Your task to perform on an android device: Open Reddit.com Image 0: 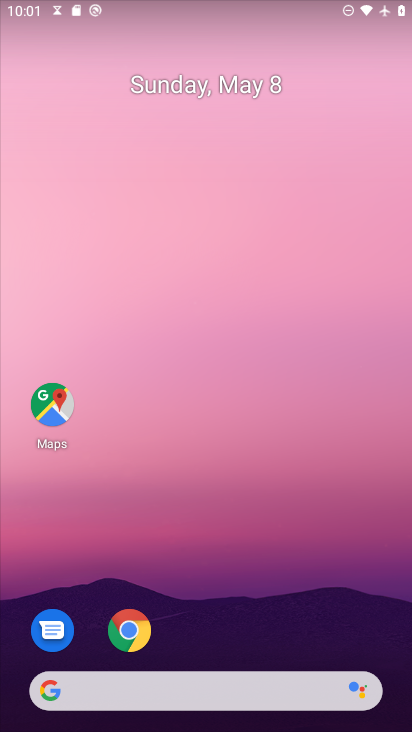
Step 0: click (127, 630)
Your task to perform on an android device: Open Reddit.com Image 1: 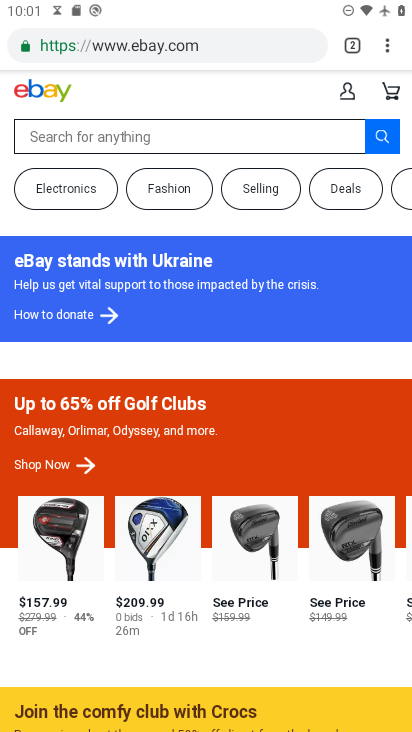
Step 1: drag from (386, 46) to (279, 96)
Your task to perform on an android device: Open Reddit.com Image 2: 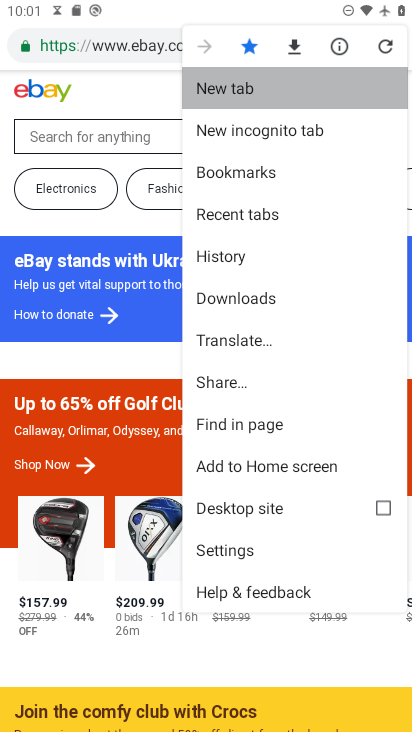
Step 2: click (279, 96)
Your task to perform on an android device: Open Reddit.com Image 3: 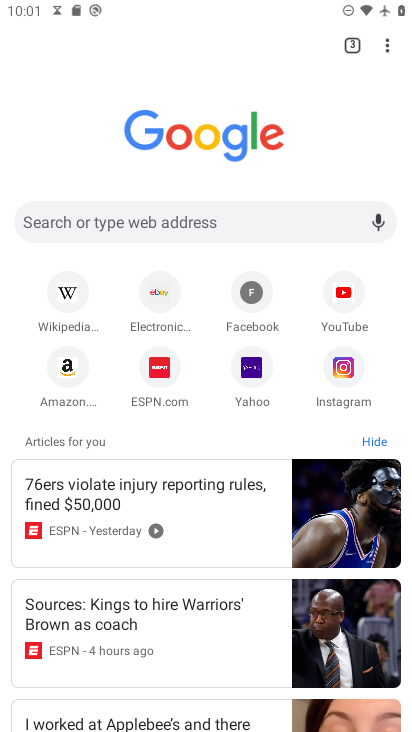
Step 3: click (118, 218)
Your task to perform on an android device: Open Reddit.com Image 4: 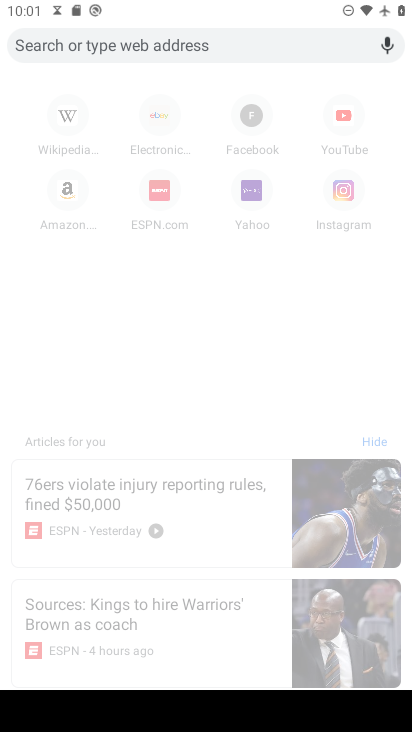
Step 4: type "reddit.com"
Your task to perform on an android device: Open Reddit.com Image 5: 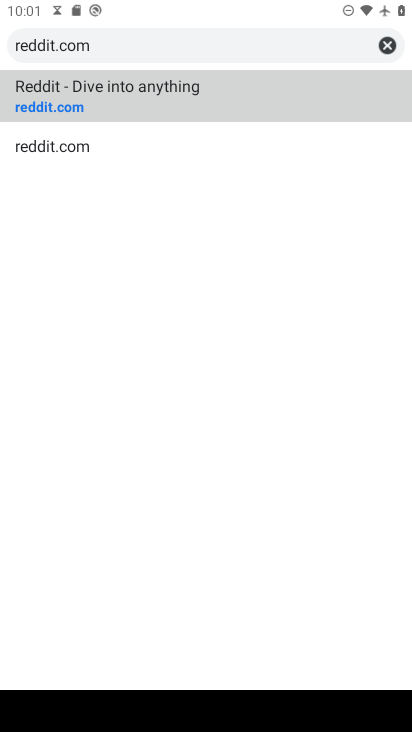
Step 5: click (118, 147)
Your task to perform on an android device: Open Reddit.com Image 6: 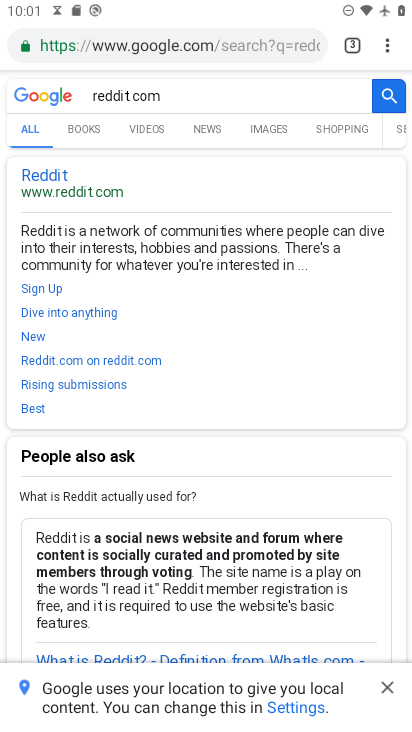
Step 6: click (86, 189)
Your task to perform on an android device: Open Reddit.com Image 7: 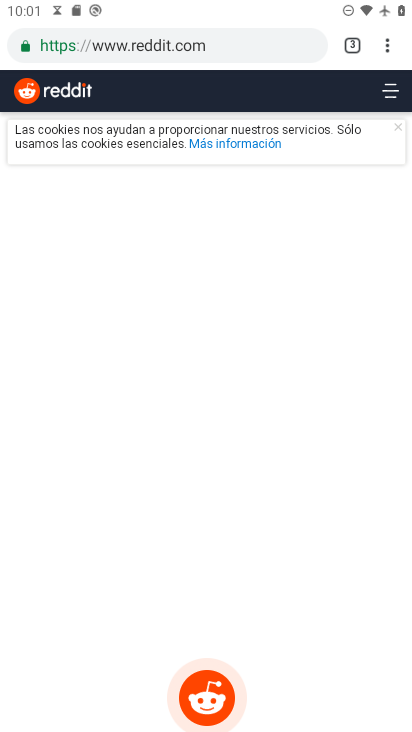
Step 7: task complete